Your task to perform on an android device: turn on location history Image 0: 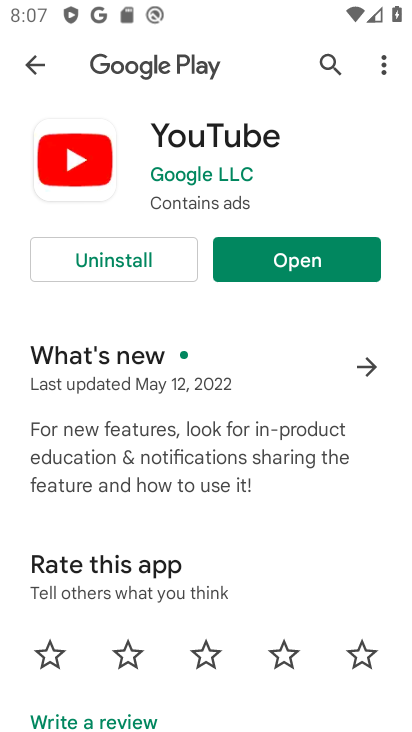
Step 0: press home button
Your task to perform on an android device: turn on location history Image 1: 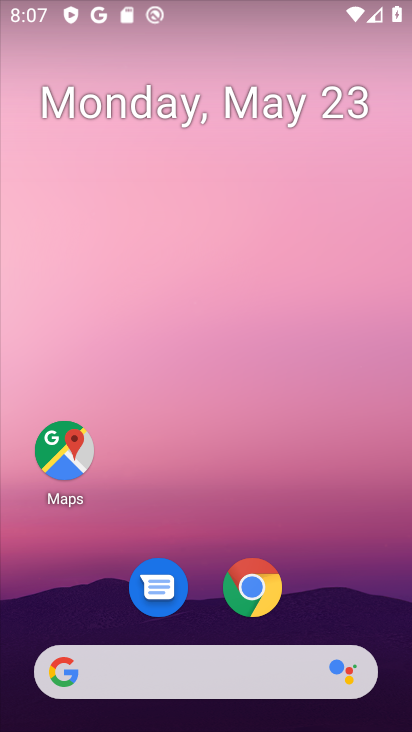
Step 1: drag from (225, 472) to (286, 32)
Your task to perform on an android device: turn on location history Image 2: 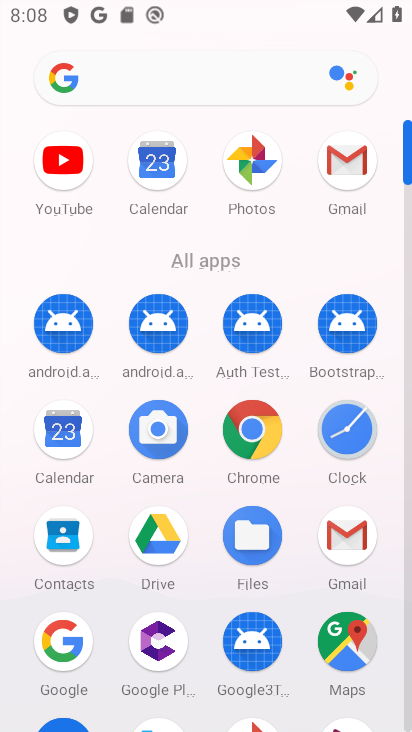
Step 2: drag from (192, 672) to (280, 65)
Your task to perform on an android device: turn on location history Image 3: 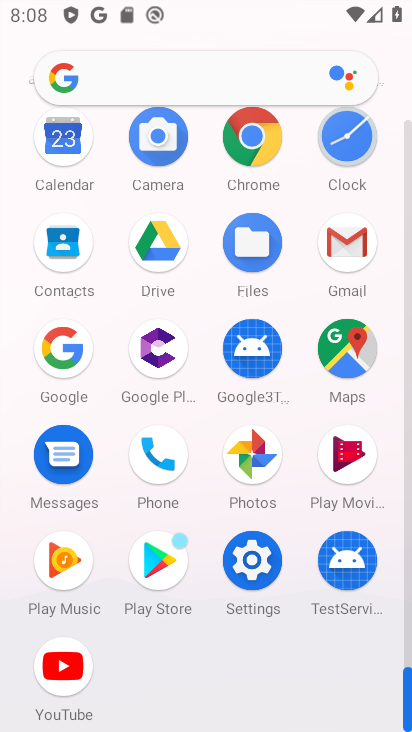
Step 3: click (256, 578)
Your task to perform on an android device: turn on location history Image 4: 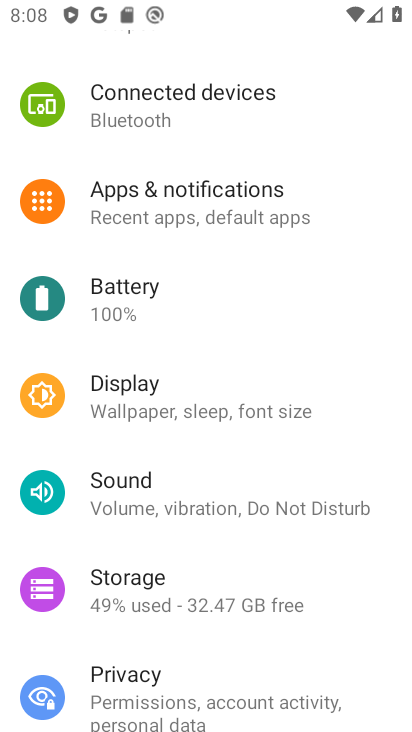
Step 4: drag from (167, 656) to (275, 14)
Your task to perform on an android device: turn on location history Image 5: 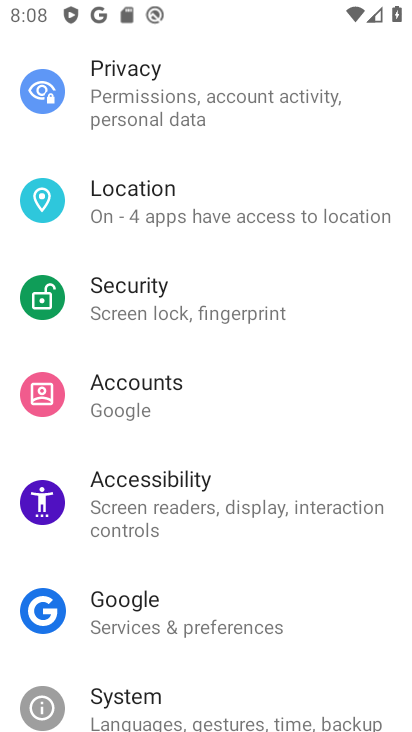
Step 5: click (144, 200)
Your task to perform on an android device: turn on location history Image 6: 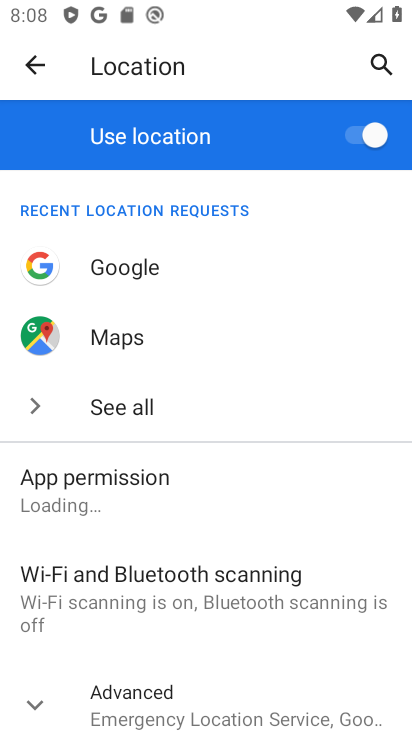
Step 6: drag from (146, 618) to (234, 173)
Your task to perform on an android device: turn on location history Image 7: 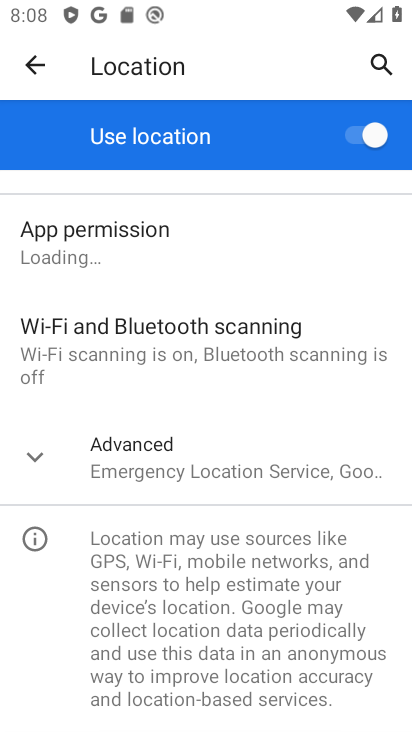
Step 7: click (184, 454)
Your task to perform on an android device: turn on location history Image 8: 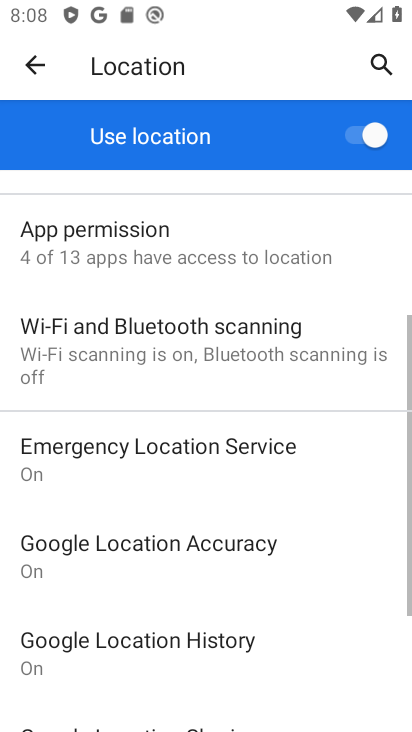
Step 8: click (137, 650)
Your task to perform on an android device: turn on location history Image 9: 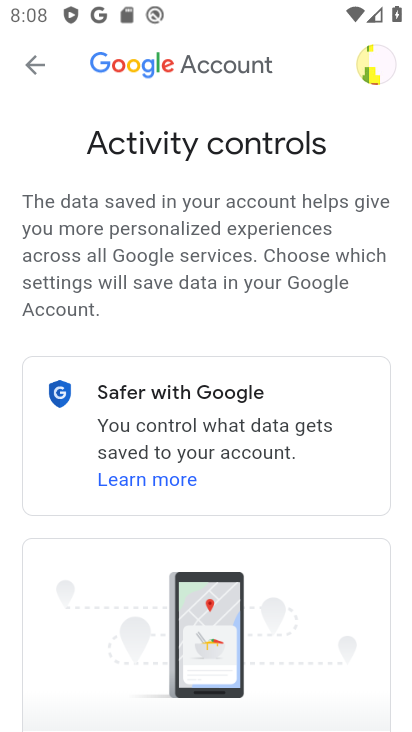
Step 9: task complete